Your task to perform on an android device: turn off javascript in the chrome app Image 0: 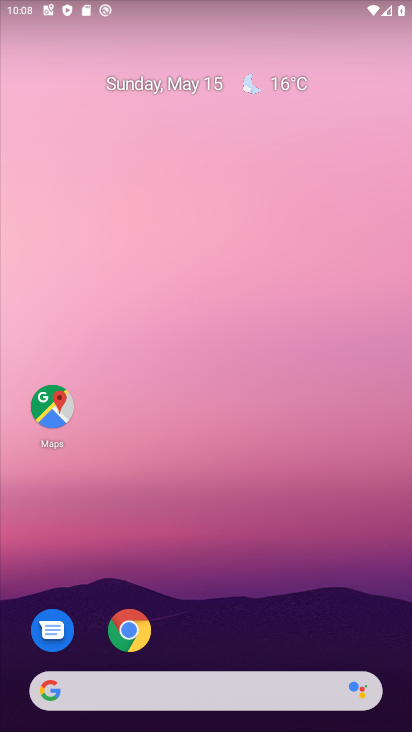
Step 0: click (142, 630)
Your task to perform on an android device: turn off javascript in the chrome app Image 1: 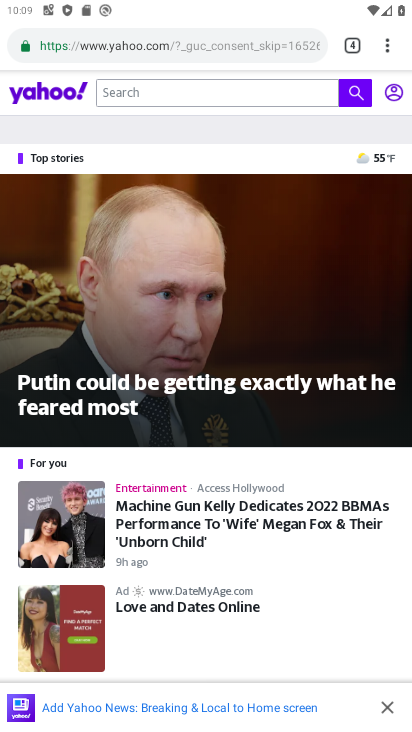
Step 1: drag from (380, 45) to (237, 505)
Your task to perform on an android device: turn off javascript in the chrome app Image 2: 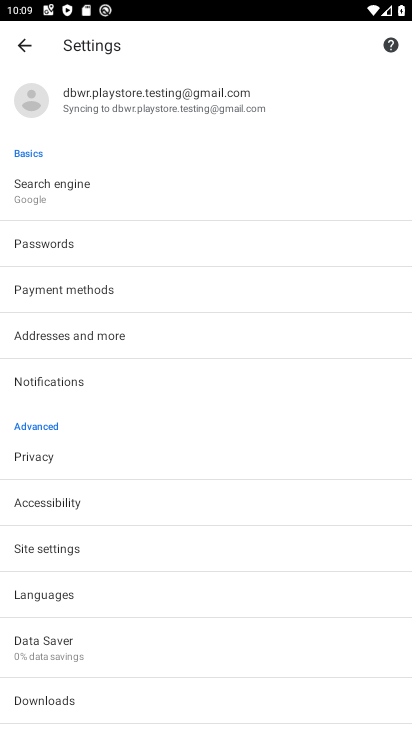
Step 2: drag from (141, 683) to (191, 497)
Your task to perform on an android device: turn off javascript in the chrome app Image 3: 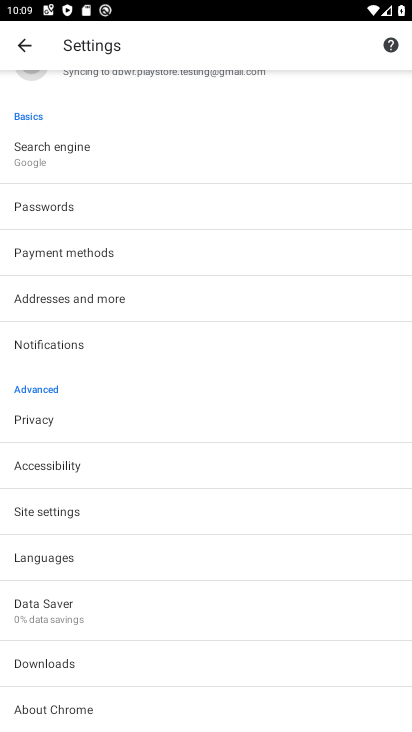
Step 3: click (109, 517)
Your task to perform on an android device: turn off javascript in the chrome app Image 4: 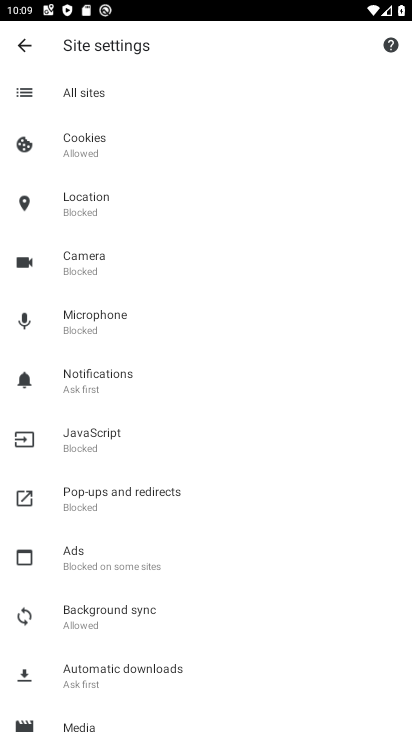
Step 4: click (129, 443)
Your task to perform on an android device: turn off javascript in the chrome app Image 5: 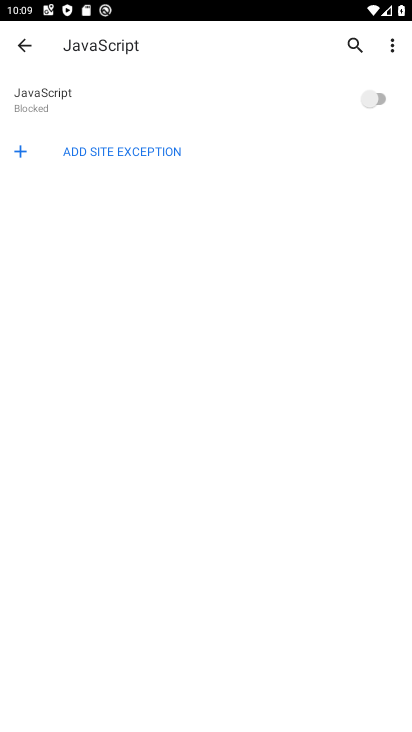
Step 5: task complete